Your task to perform on an android device: open app "Microsoft Authenticator" (install if not already installed) and go to login screen Image 0: 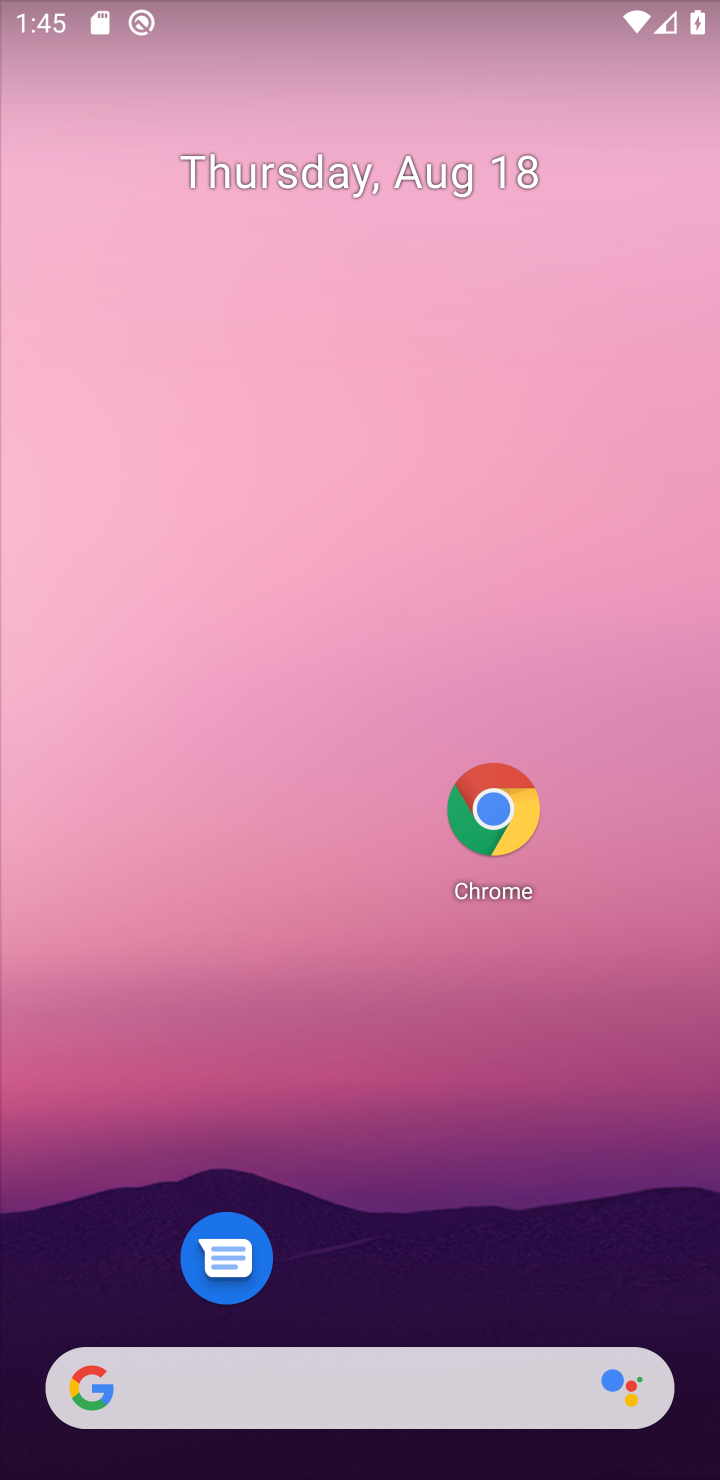
Step 0: drag from (308, 1324) to (430, 368)
Your task to perform on an android device: open app "Microsoft Authenticator" (install if not already installed) and go to login screen Image 1: 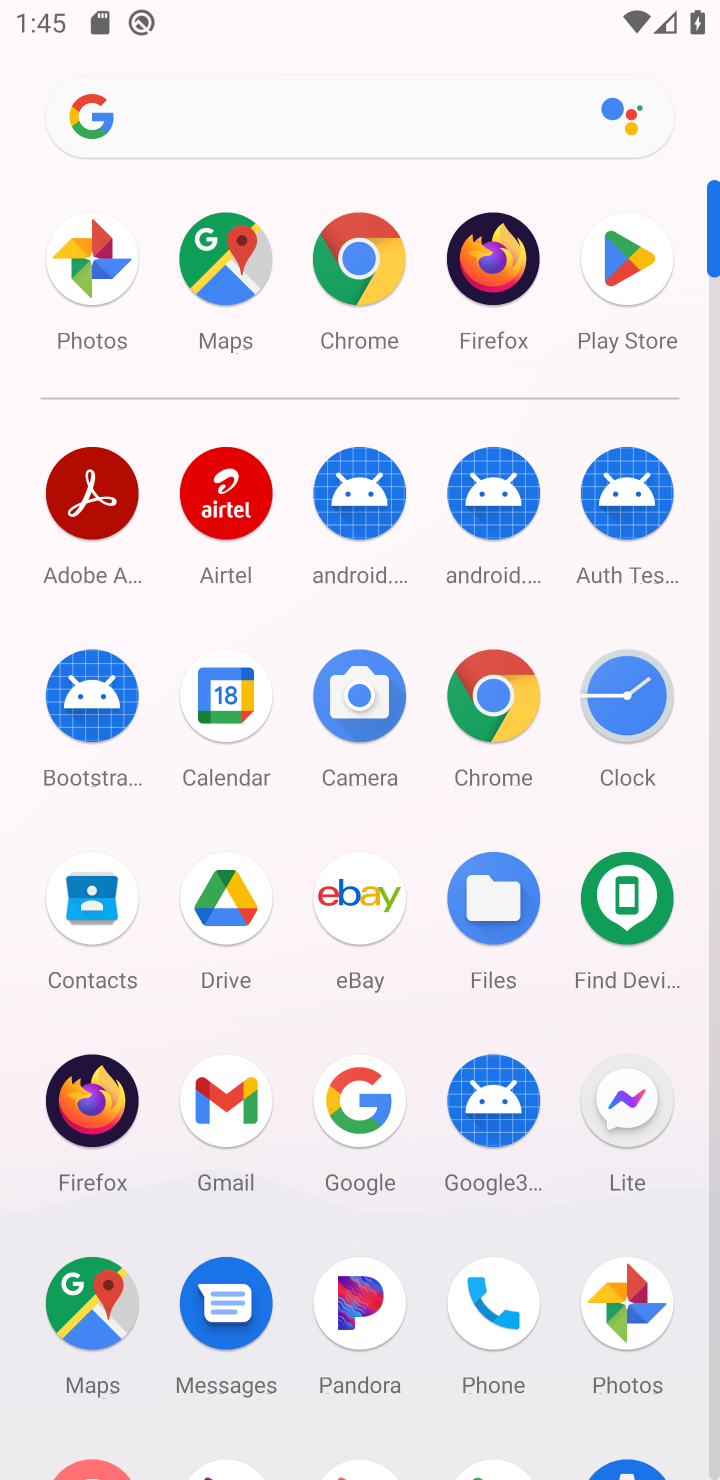
Step 1: click (636, 269)
Your task to perform on an android device: open app "Microsoft Authenticator" (install if not already installed) and go to login screen Image 2: 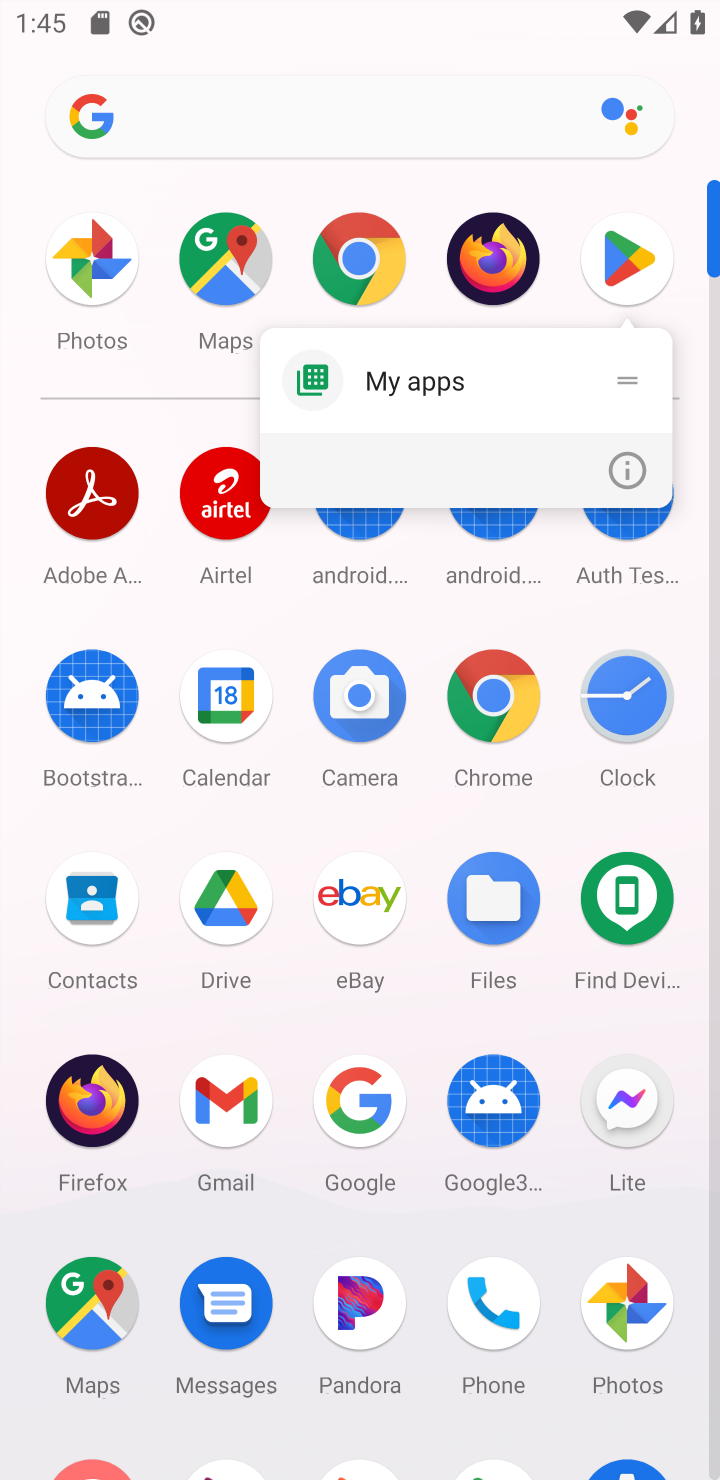
Step 2: click (636, 269)
Your task to perform on an android device: open app "Microsoft Authenticator" (install if not already installed) and go to login screen Image 3: 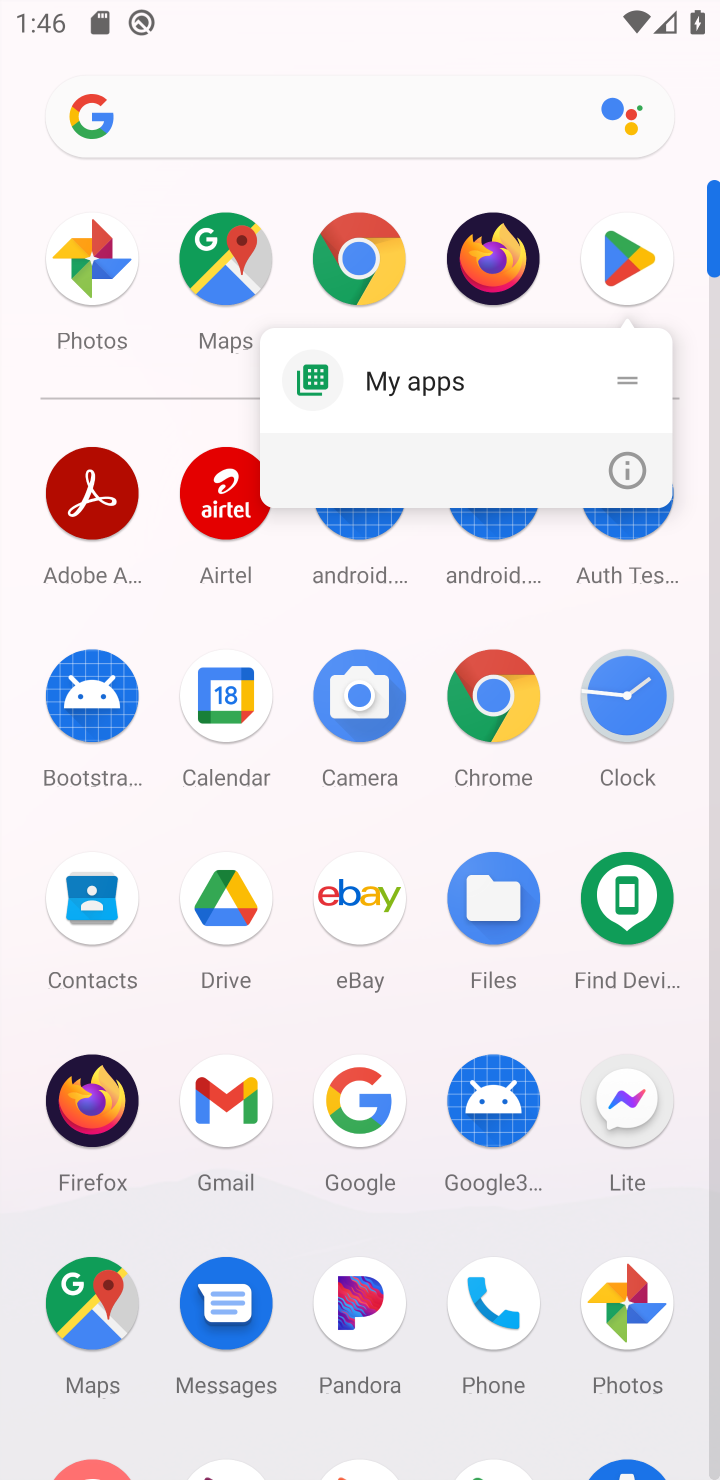
Step 3: click (636, 269)
Your task to perform on an android device: open app "Microsoft Authenticator" (install if not already installed) and go to login screen Image 4: 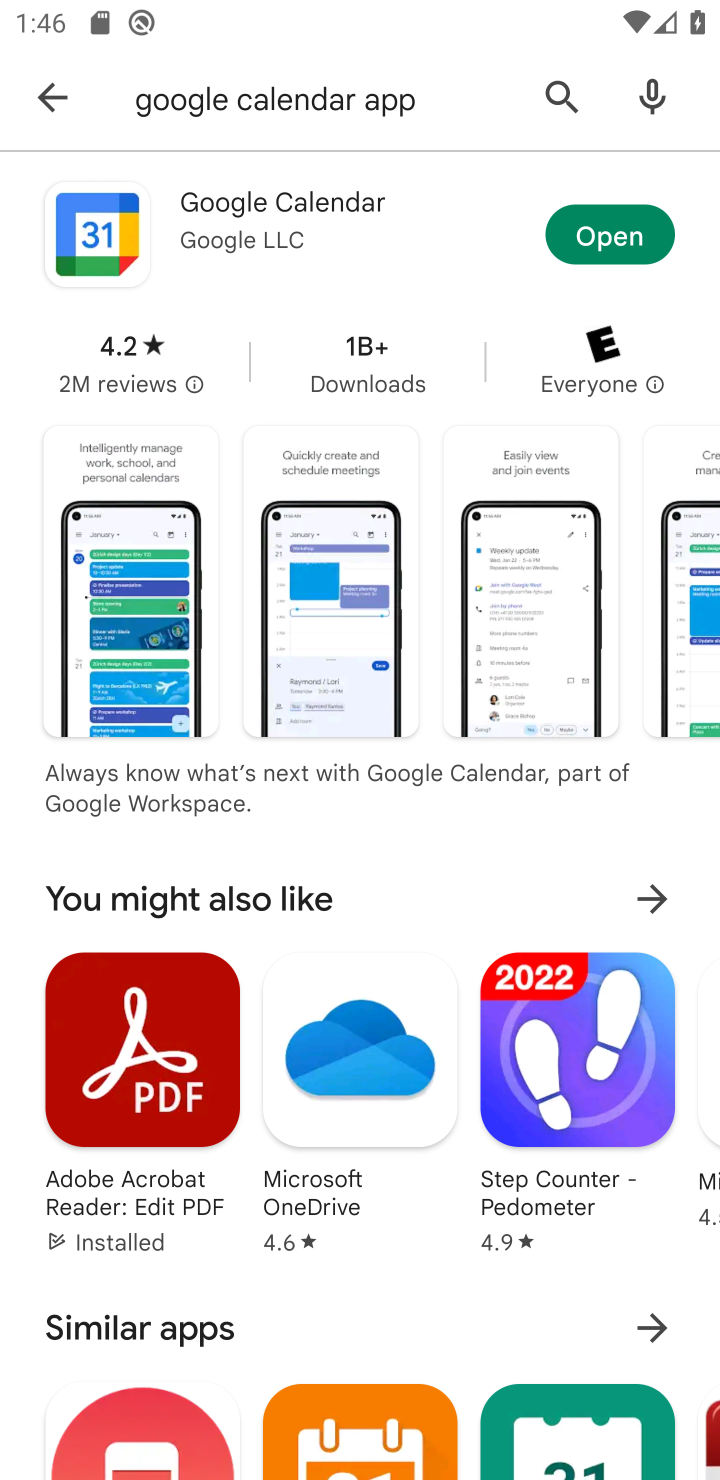
Step 4: click (89, 106)
Your task to perform on an android device: open app "Microsoft Authenticator" (install if not already installed) and go to login screen Image 5: 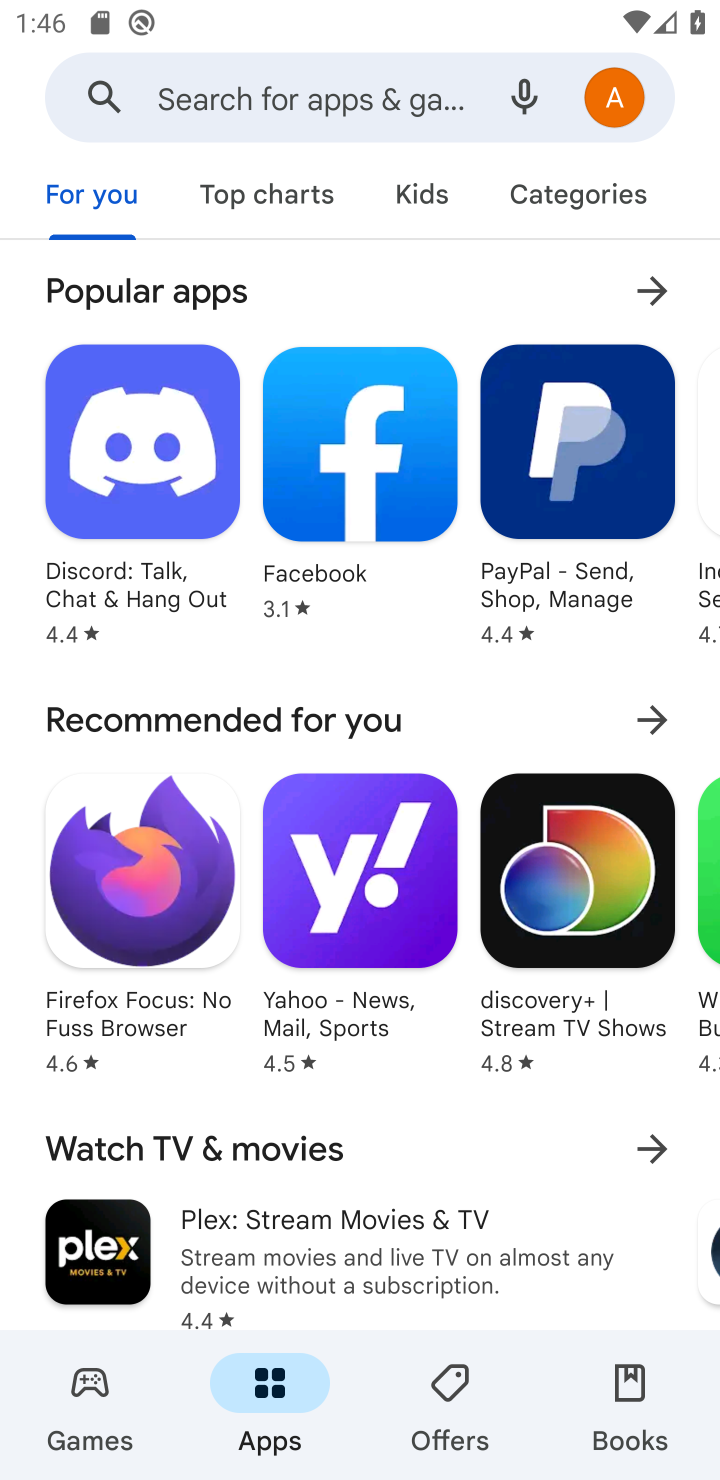
Step 5: click (335, 76)
Your task to perform on an android device: open app "Microsoft Authenticator" (install if not already installed) and go to login screen Image 6: 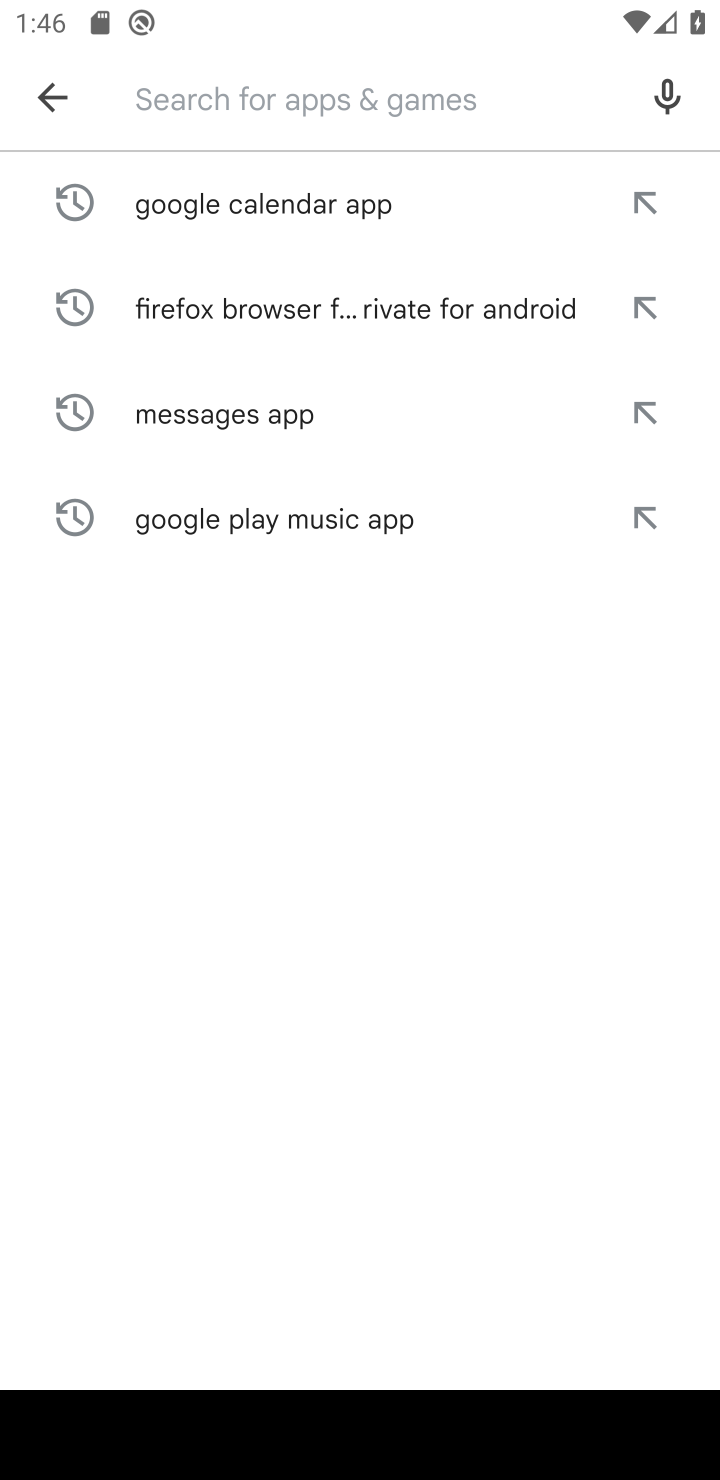
Step 6: type "Microsoft Authenticator "
Your task to perform on an android device: open app "Microsoft Authenticator" (install if not already installed) and go to login screen Image 7: 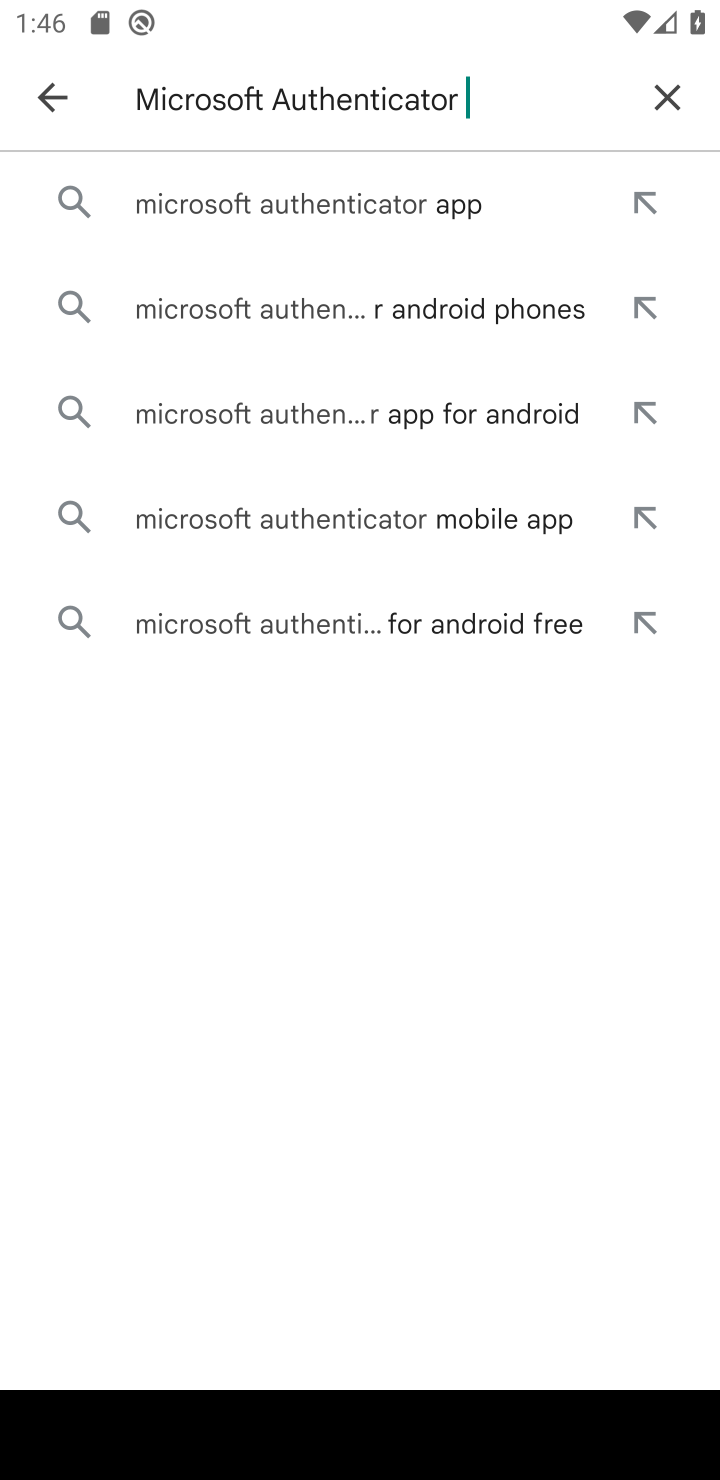
Step 7: click (291, 210)
Your task to perform on an android device: open app "Microsoft Authenticator" (install if not already installed) and go to login screen Image 8: 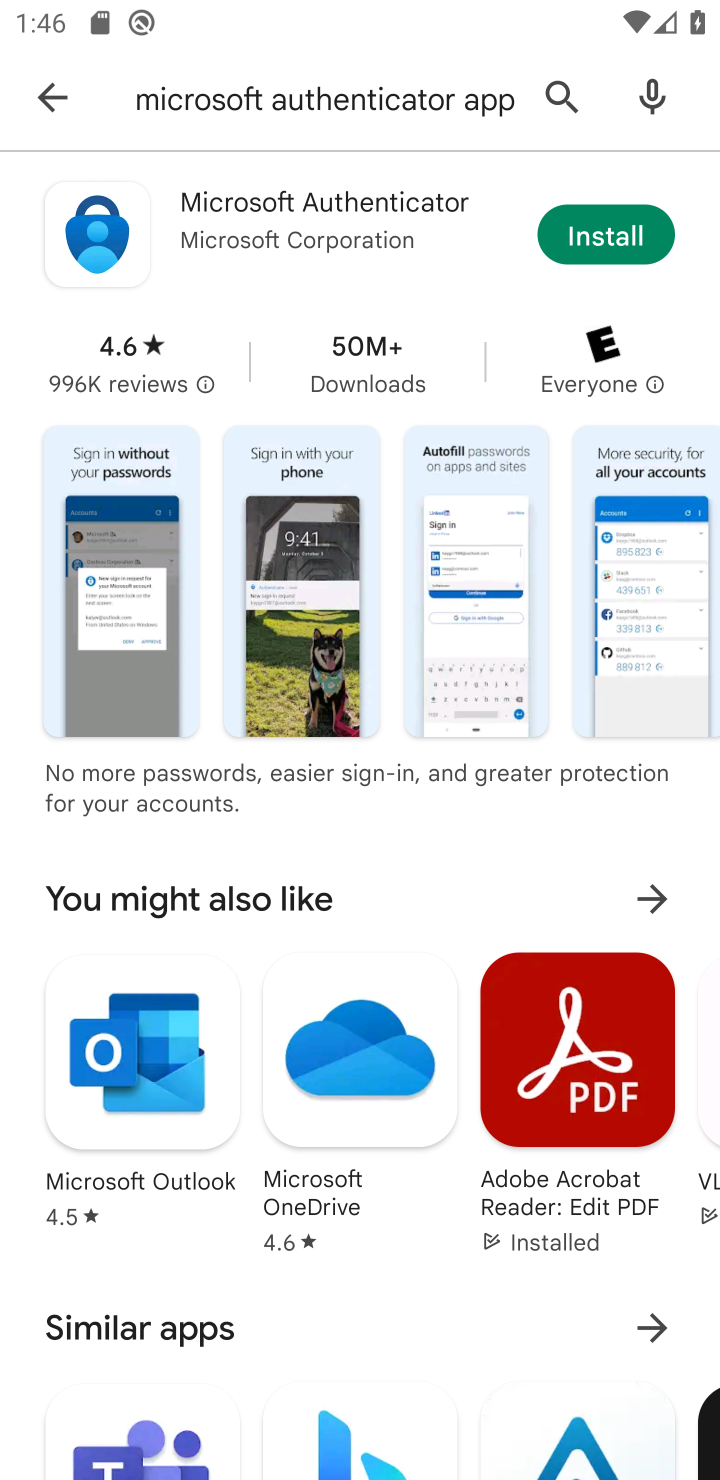
Step 8: click (594, 209)
Your task to perform on an android device: open app "Microsoft Authenticator" (install if not already installed) and go to login screen Image 9: 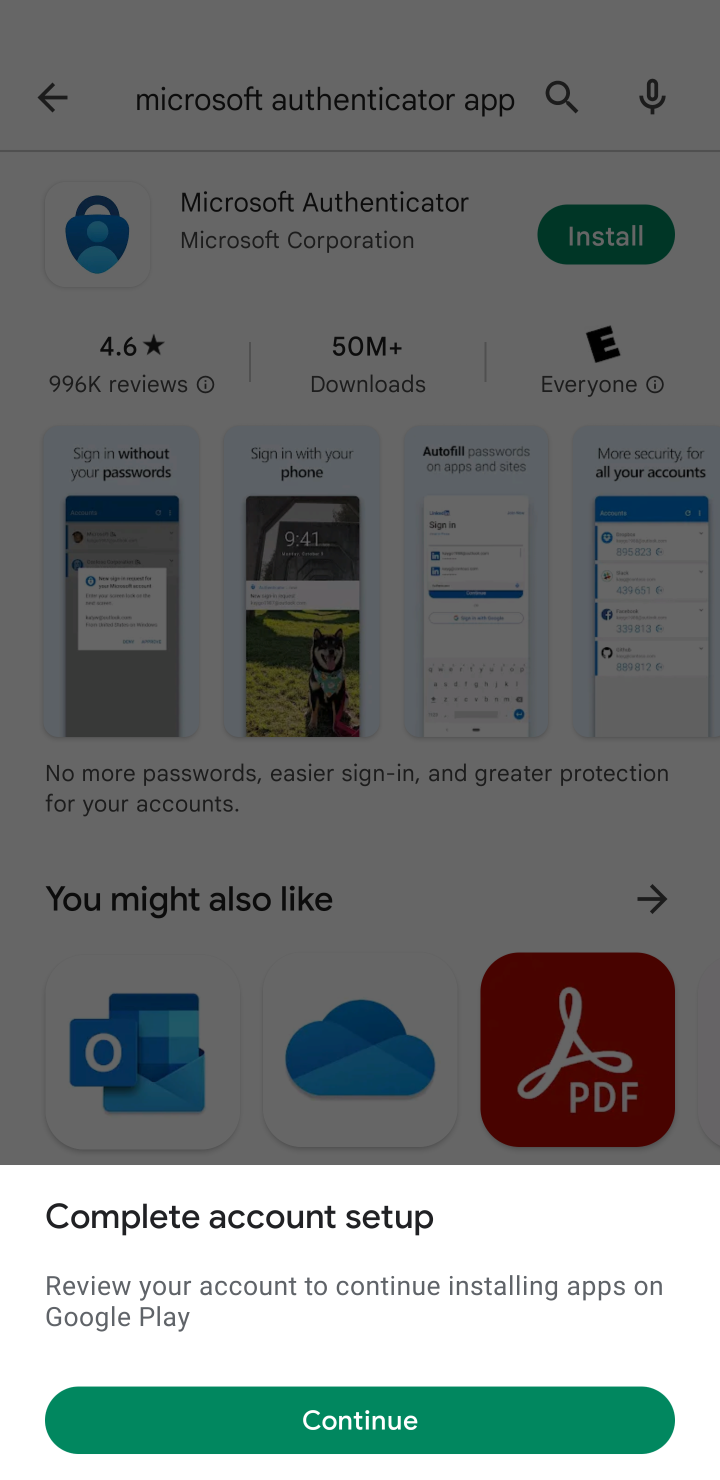
Step 9: task complete